Your task to perform on an android device: find which apps use the phone's location Image 0: 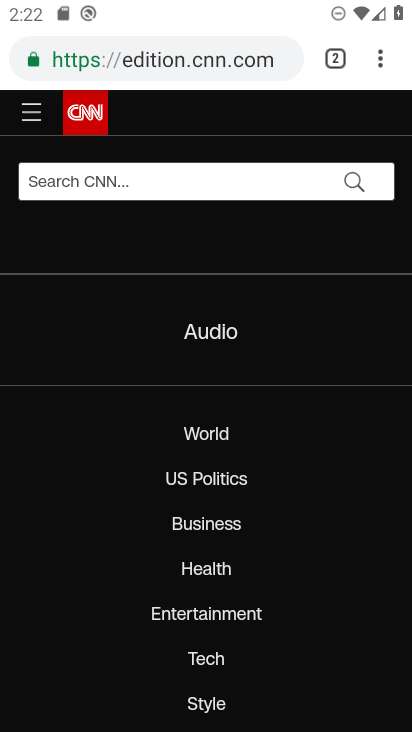
Step 0: press home button
Your task to perform on an android device: find which apps use the phone's location Image 1: 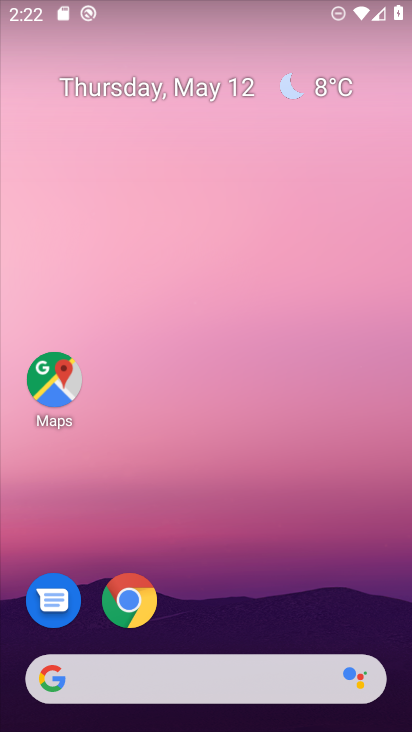
Step 1: drag from (217, 721) to (208, 246)
Your task to perform on an android device: find which apps use the phone's location Image 2: 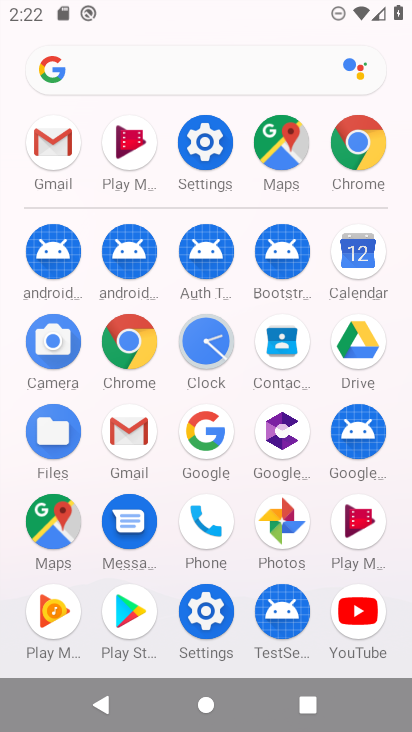
Step 2: click (204, 144)
Your task to perform on an android device: find which apps use the phone's location Image 3: 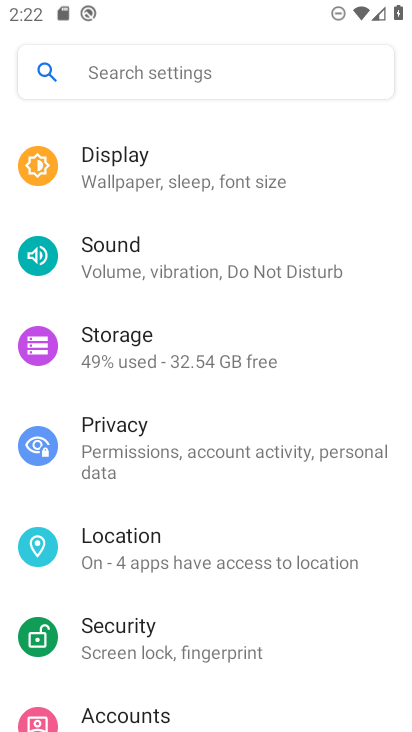
Step 3: click (118, 533)
Your task to perform on an android device: find which apps use the phone's location Image 4: 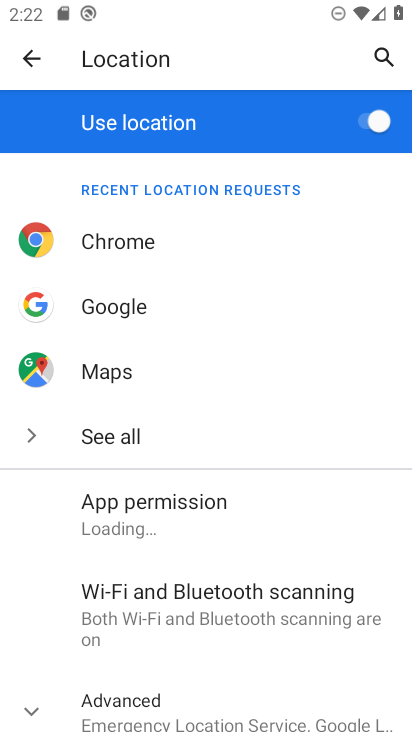
Step 4: drag from (175, 670) to (190, 349)
Your task to perform on an android device: find which apps use the phone's location Image 5: 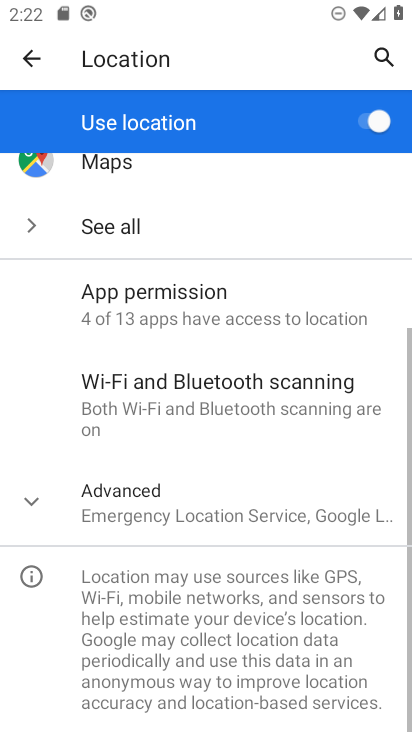
Step 5: click (143, 312)
Your task to perform on an android device: find which apps use the phone's location Image 6: 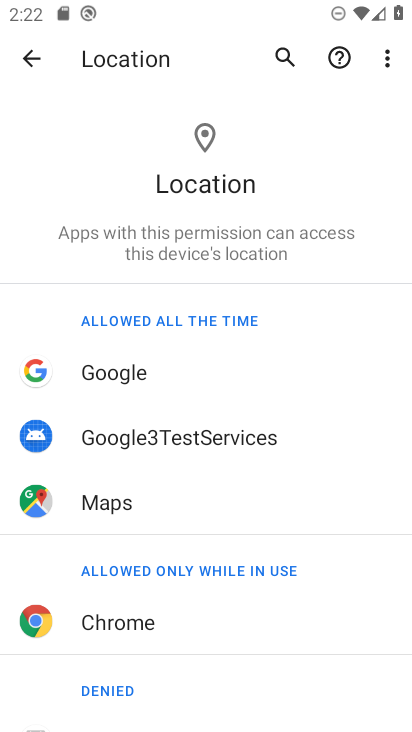
Step 6: task complete